Your task to perform on an android device: snooze an email in the gmail app Image 0: 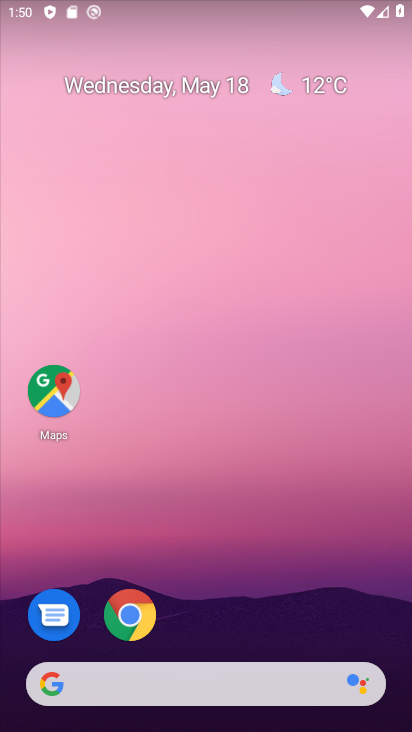
Step 0: drag from (375, 615) to (334, 7)
Your task to perform on an android device: snooze an email in the gmail app Image 1: 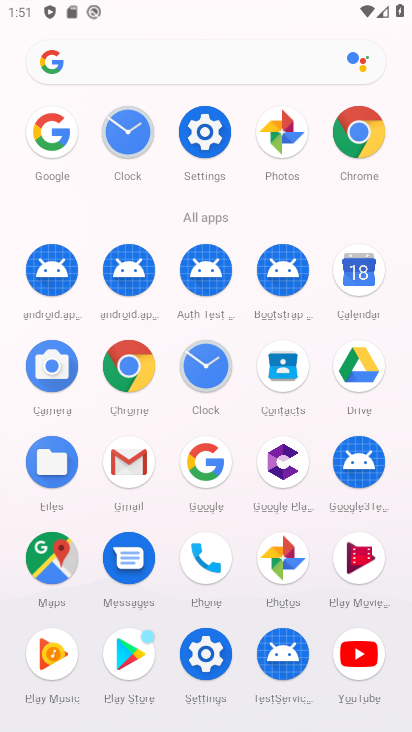
Step 1: click (134, 457)
Your task to perform on an android device: snooze an email in the gmail app Image 2: 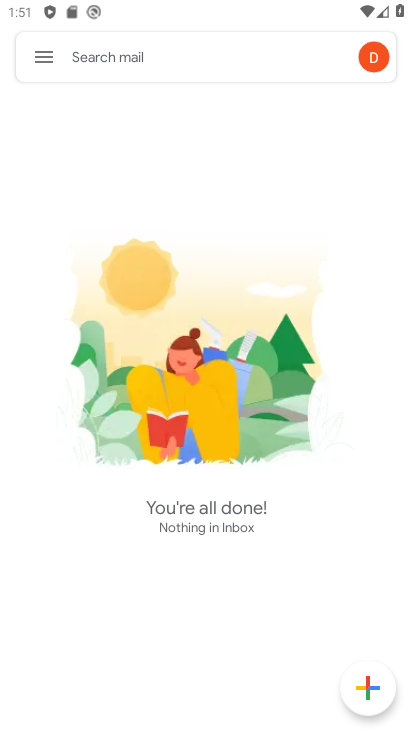
Step 2: task complete